Your task to perform on an android device: delete browsing data in the chrome app Image 0: 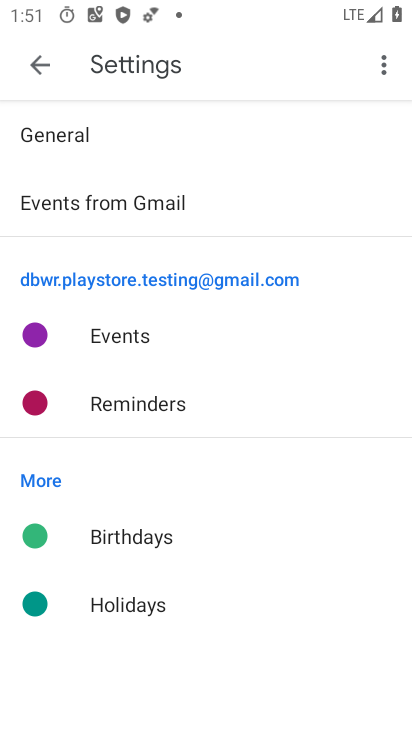
Step 0: press home button
Your task to perform on an android device: delete browsing data in the chrome app Image 1: 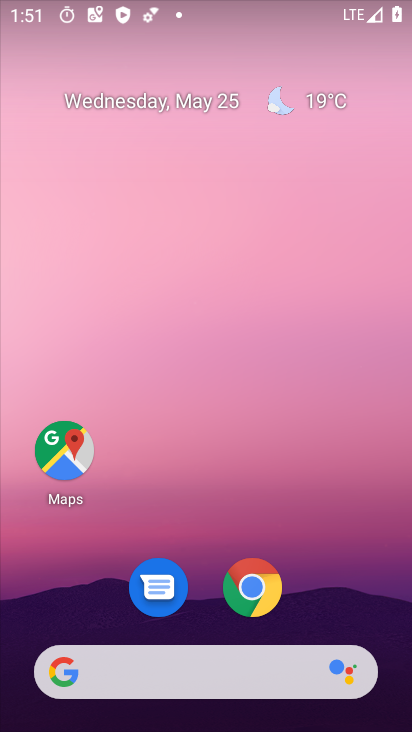
Step 1: click (251, 586)
Your task to perform on an android device: delete browsing data in the chrome app Image 2: 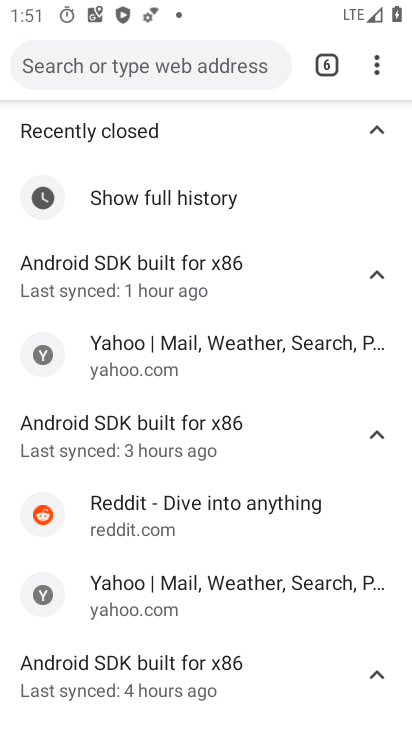
Step 2: click (376, 70)
Your task to perform on an android device: delete browsing data in the chrome app Image 3: 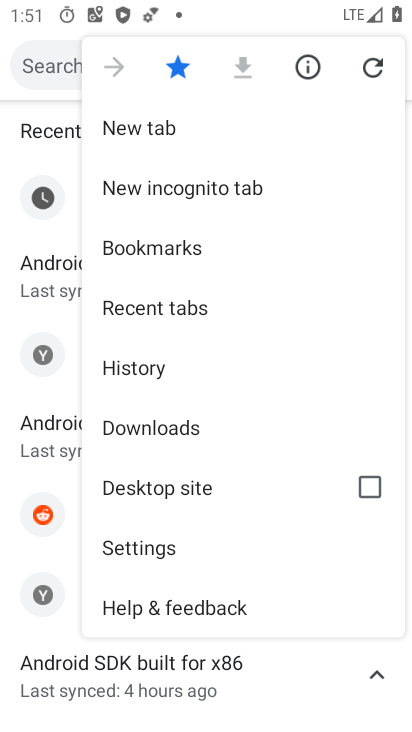
Step 3: click (134, 366)
Your task to perform on an android device: delete browsing data in the chrome app Image 4: 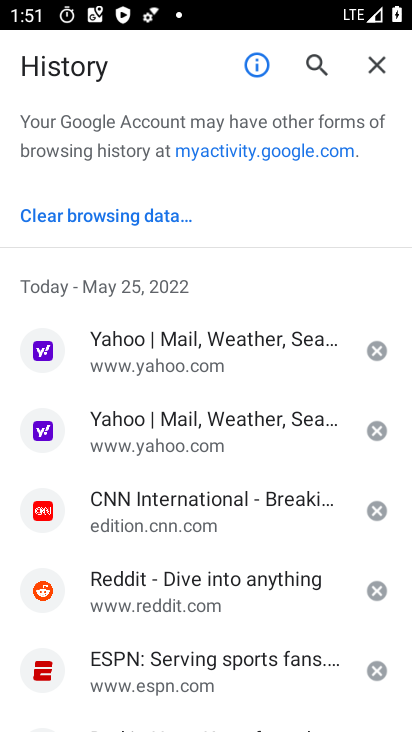
Step 4: click (139, 216)
Your task to perform on an android device: delete browsing data in the chrome app Image 5: 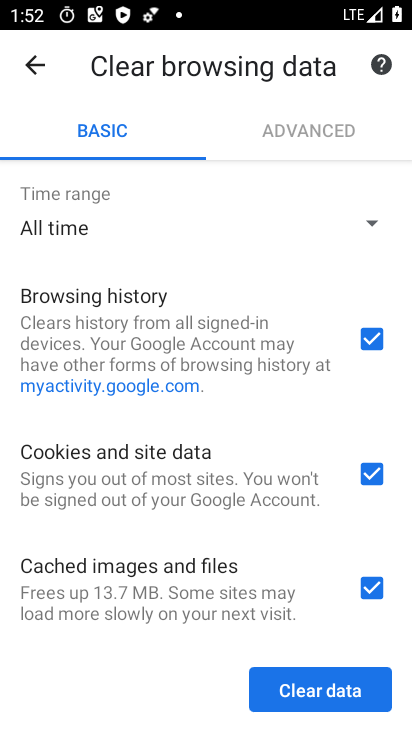
Step 5: click (374, 594)
Your task to perform on an android device: delete browsing data in the chrome app Image 6: 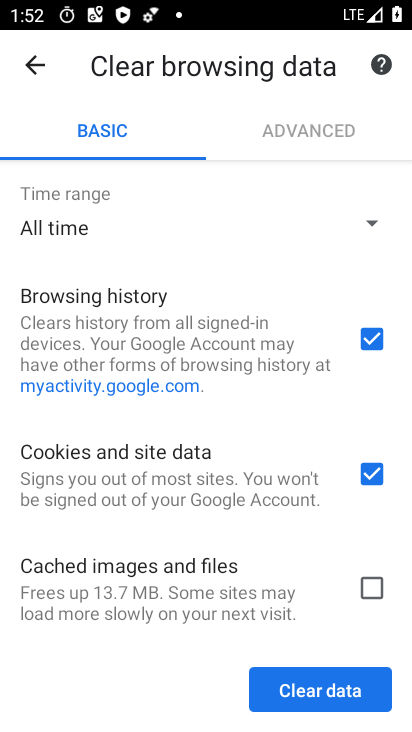
Step 6: click (371, 473)
Your task to perform on an android device: delete browsing data in the chrome app Image 7: 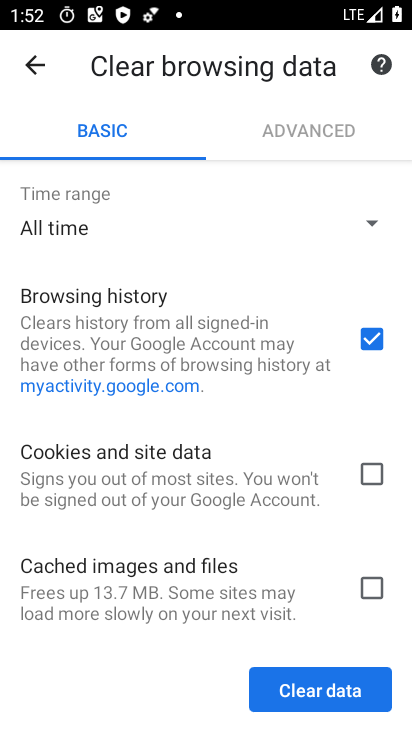
Step 7: click (312, 687)
Your task to perform on an android device: delete browsing data in the chrome app Image 8: 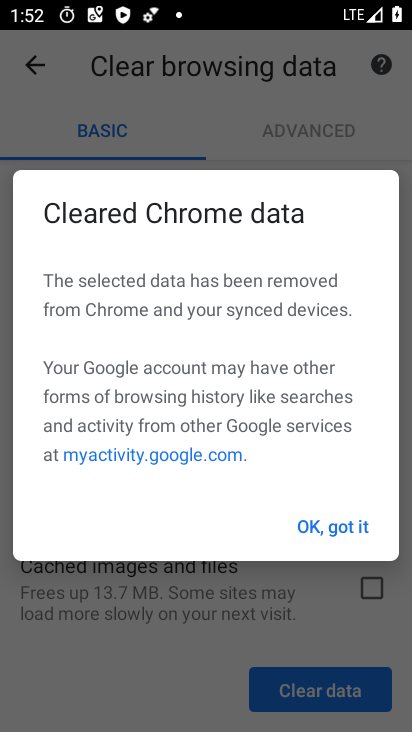
Step 8: click (328, 520)
Your task to perform on an android device: delete browsing data in the chrome app Image 9: 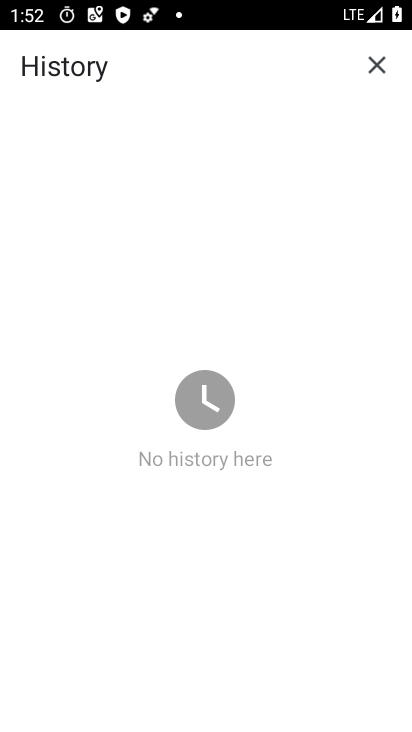
Step 9: task complete